Your task to perform on an android device: show emergency info Image 0: 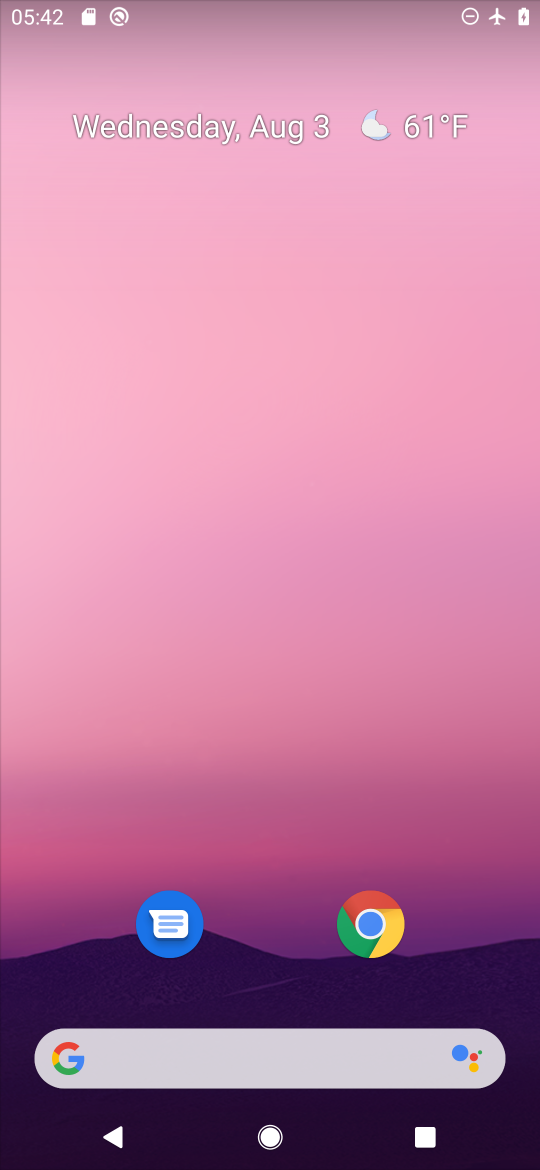
Step 0: drag from (254, 850) to (262, 289)
Your task to perform on an android device: show emergency info Image 1: 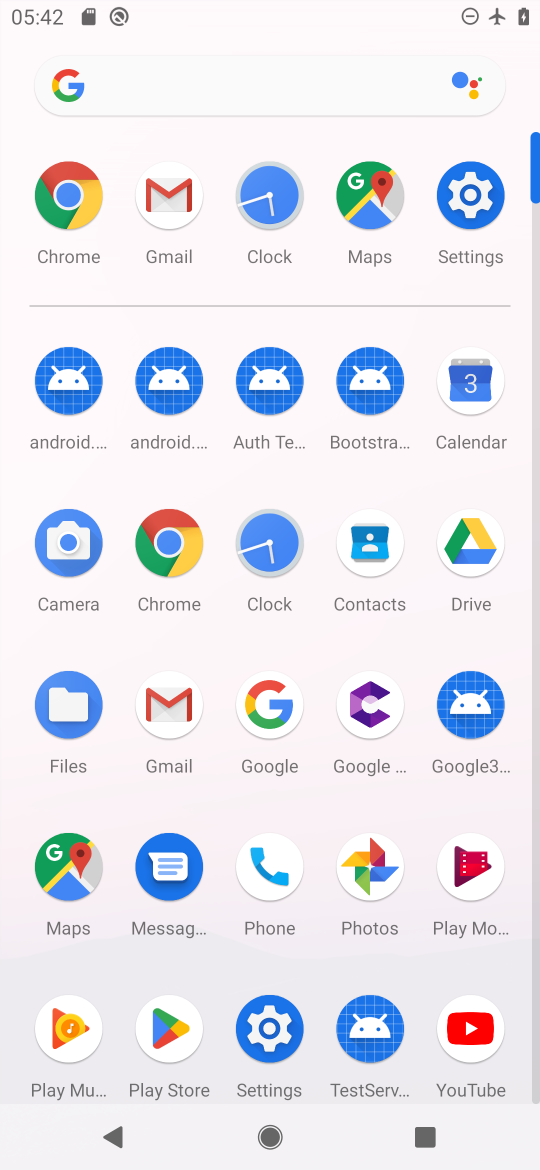
Step 1: click (460, 189)
Your task to perform on an android device: show emergency info Image 2: 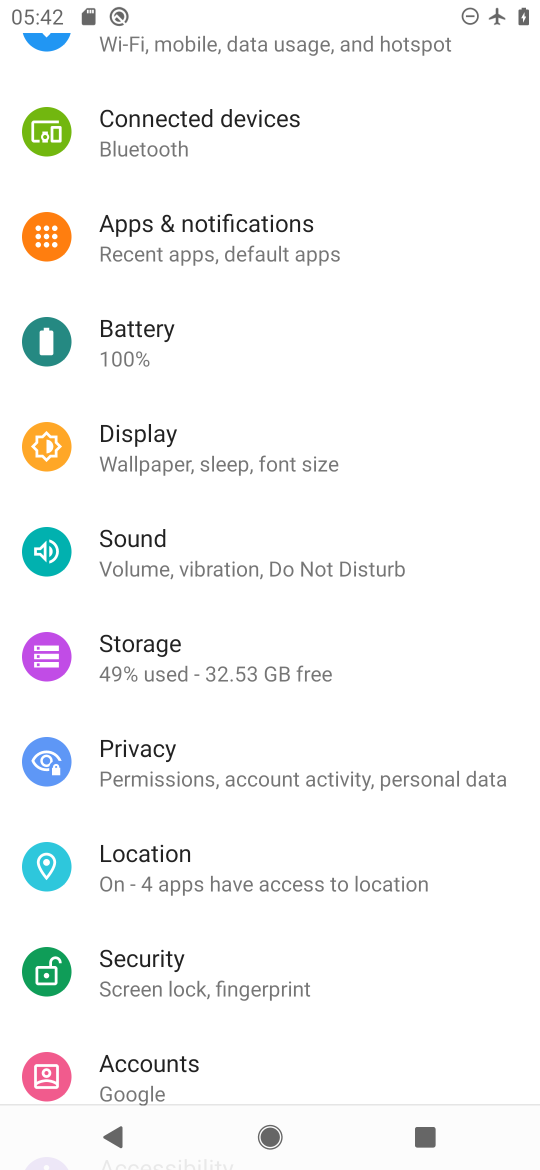
Step 2: drag from (238, 1029) to (238, 303)
Your task to perform on an android device: show emergency info Image 3: 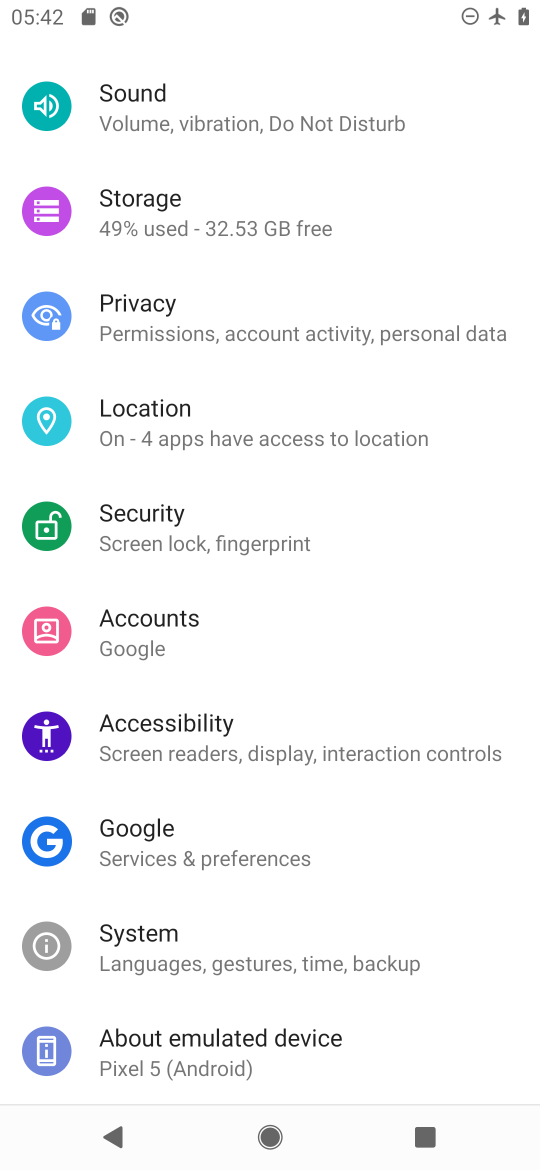
Step 3: drag from (239, 958) to (241, 427)
Your task to perform on an android device: show emergency info Image 4: 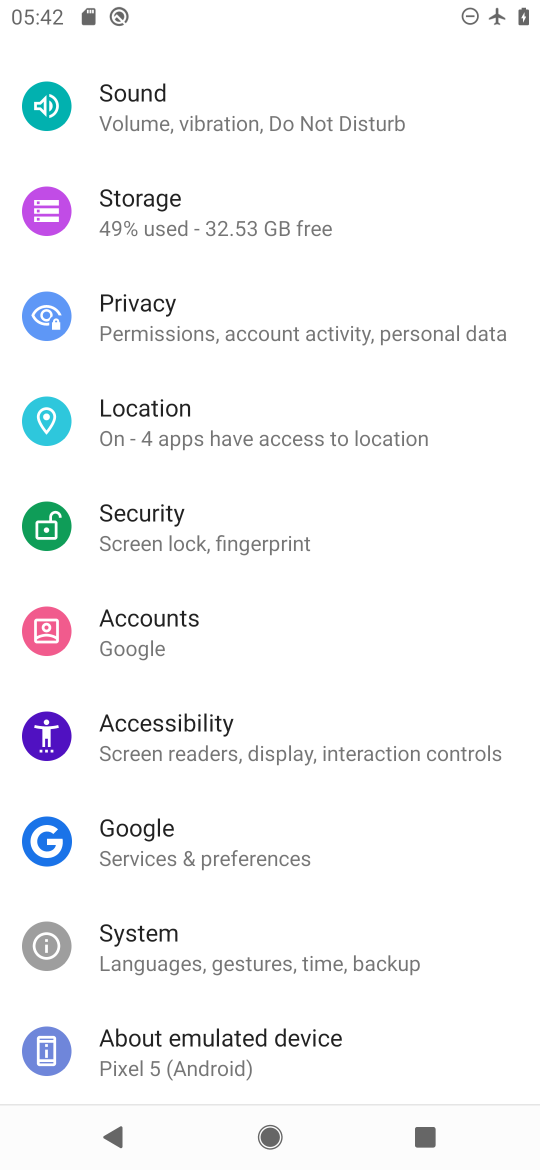
Step 4: click (173, 1061)
Your task to perform on an android device: show emergency info Image 5: 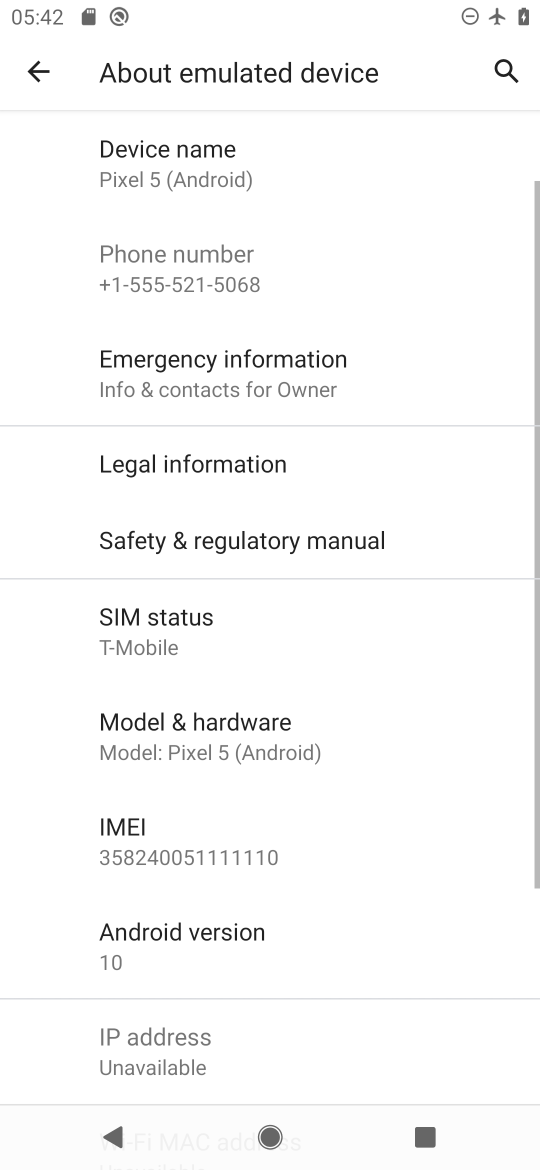
Step 5: click (216, 402)
Your task to perform on an android device: show emergency info Image 6: 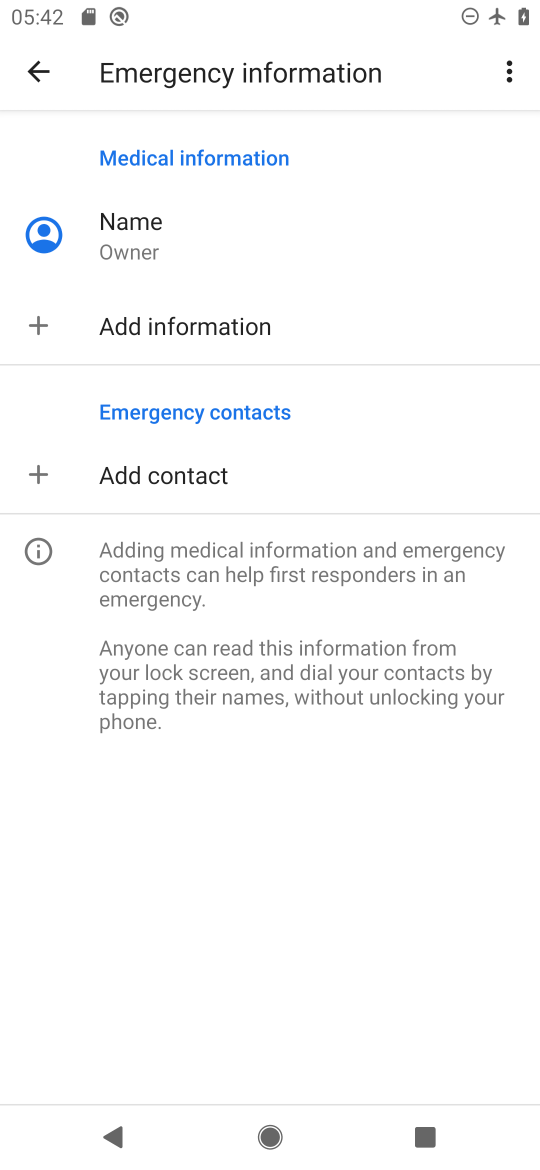
Step 6: task complete